Your task to perform on an android device: Open network settings Image 0: 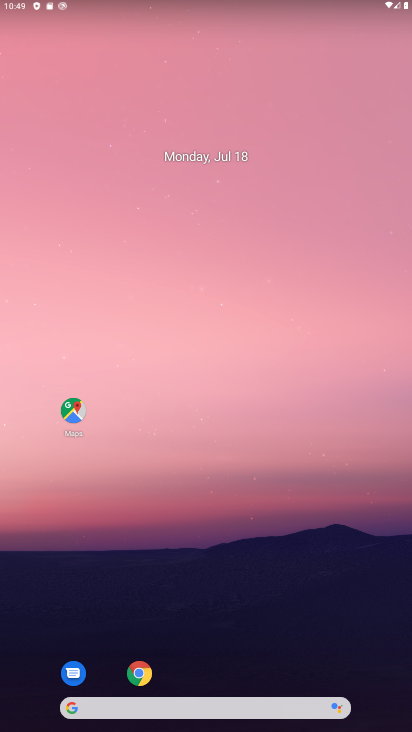
Step 0: press home button
Your task to perform on an android device: Open network settings Image 1: 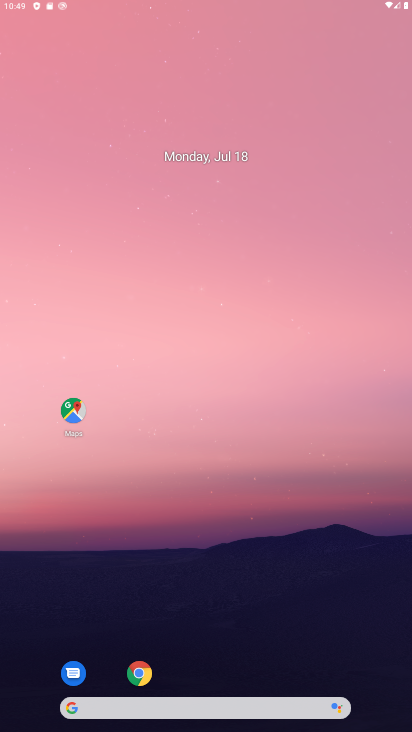
Step 1: drag from (222, 672) to (215, 13)
Your task to perform on an android device: Open network settings Image 2: 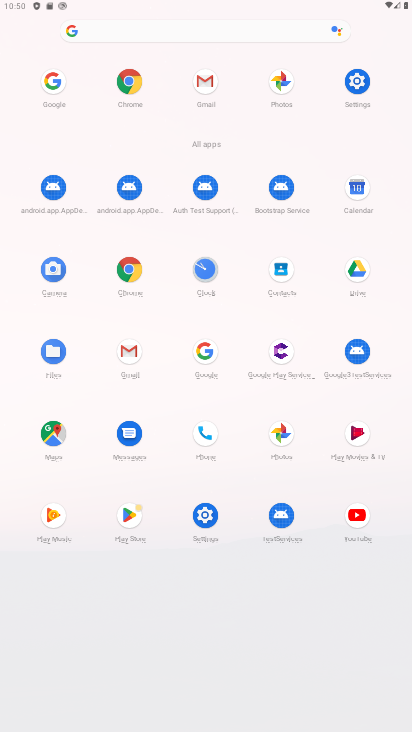
Step 2: click (356, 79)
Your task to perform on an android device: Open network settings Image 3: 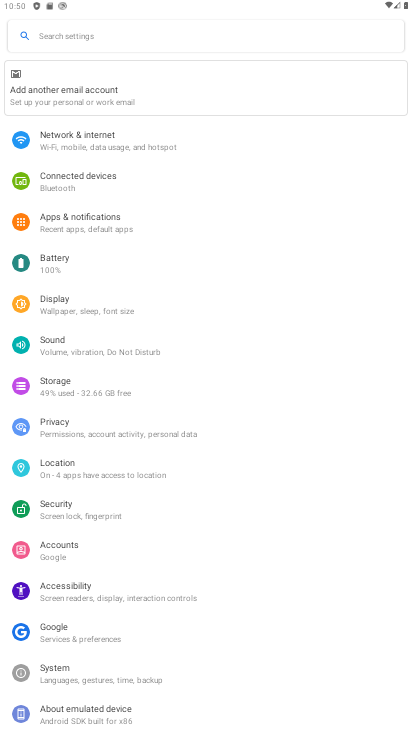
Step 3: click (123, 136)
Your task to perform on an android device: Open network settings Image 4: 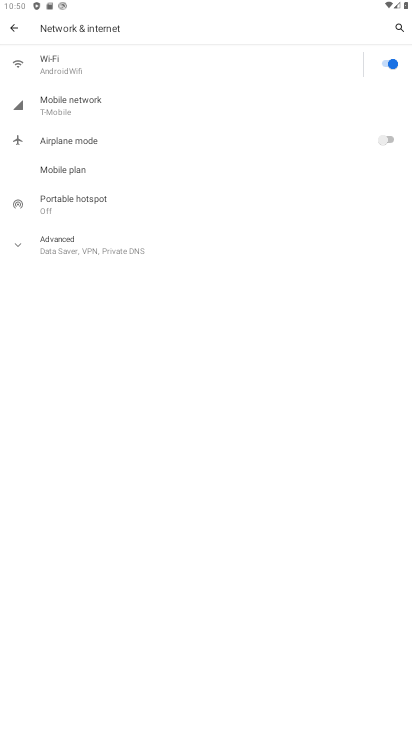
Step 4: click (14, 242)
Your task to perform on an android device: Open network settings Image 5: 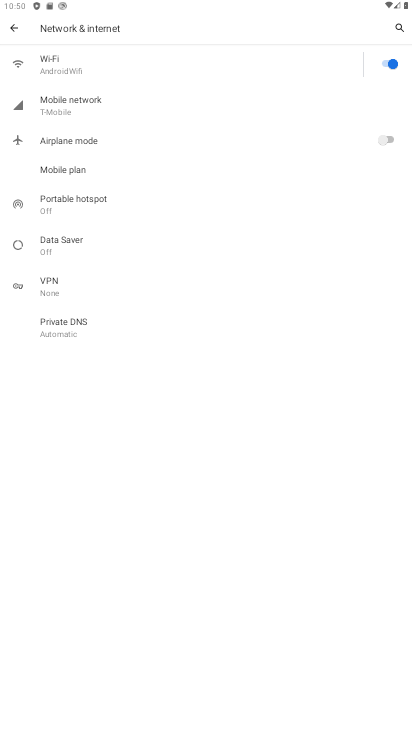
Step 5: task complete